Your task to perform on an android device: Open Google Chrome Image 0: 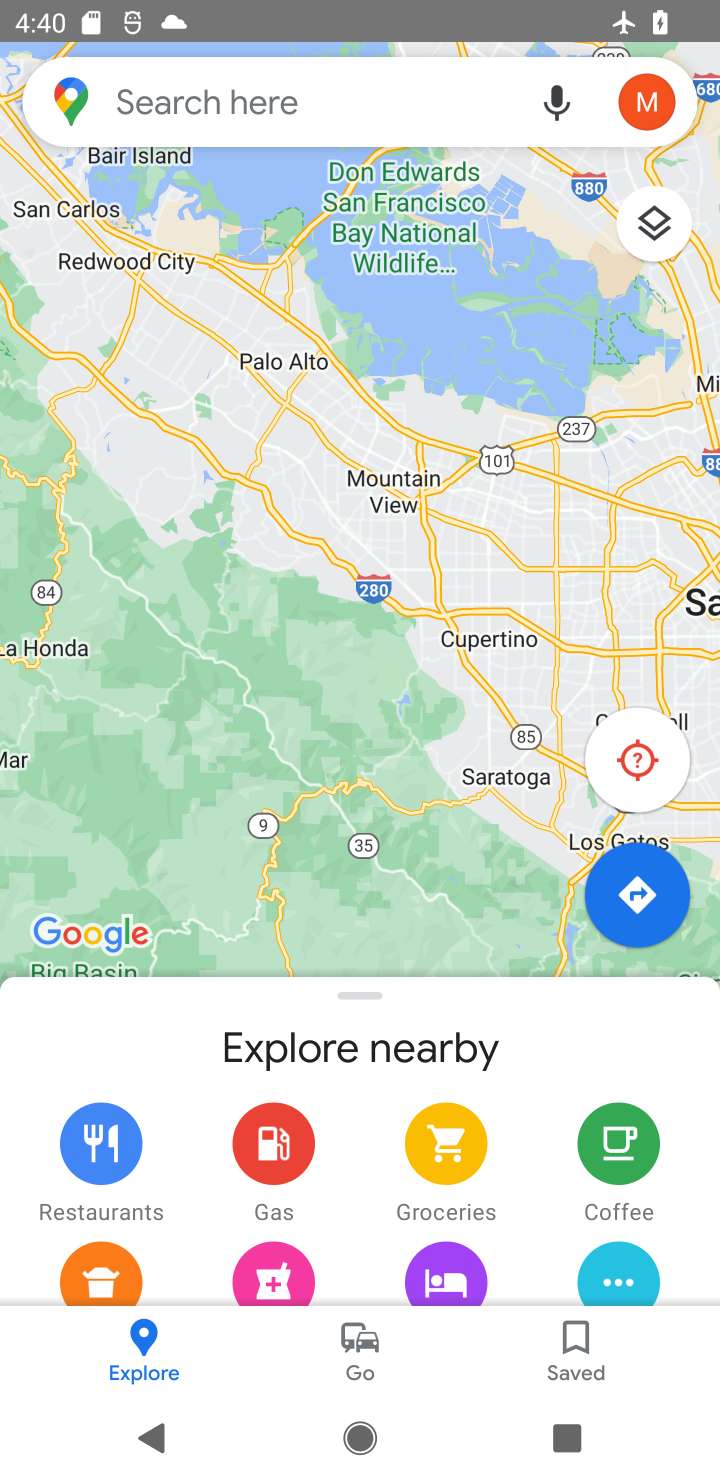
Step 0: press back button
Your task to perform on an android device: Open Google Chrome Image 1: 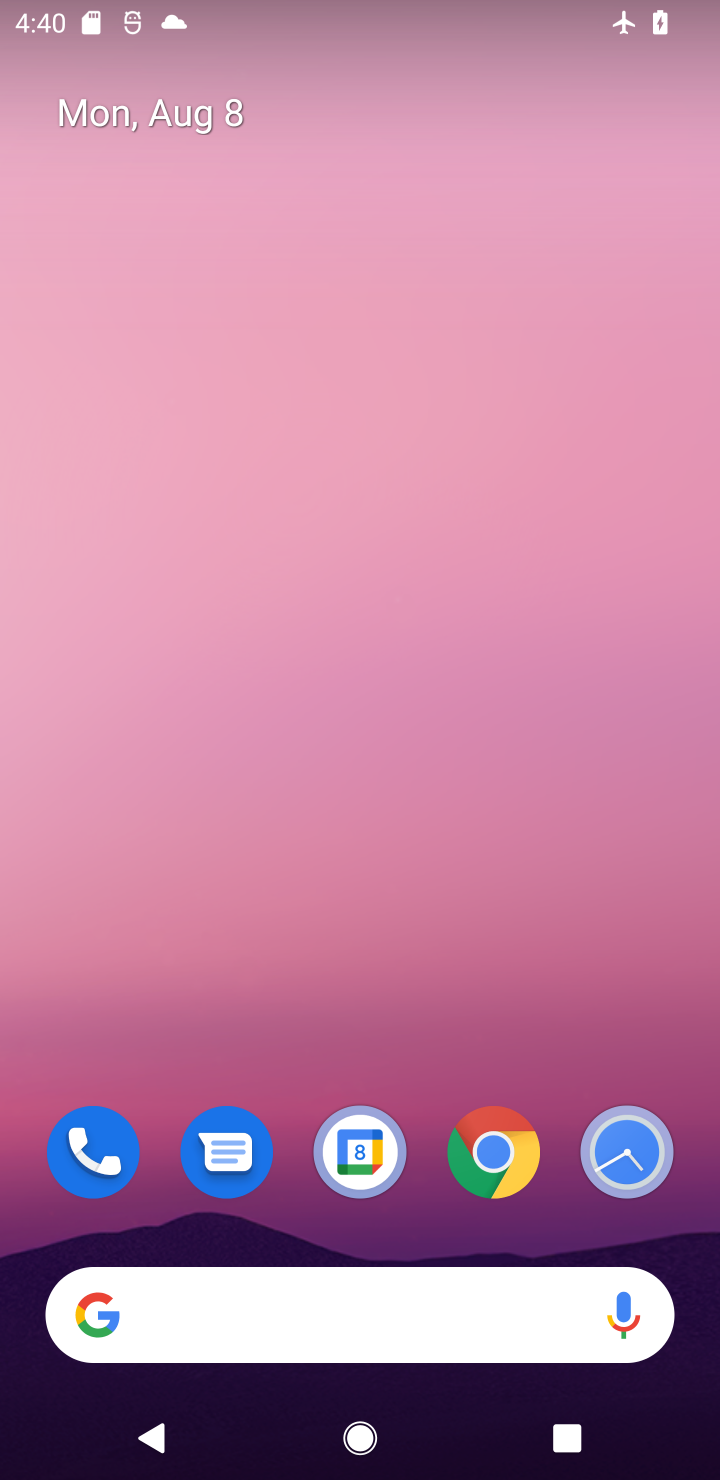
Step 1: click (506, 1147)
Your task to perform on an android device: Open Google Chrome Image 2: 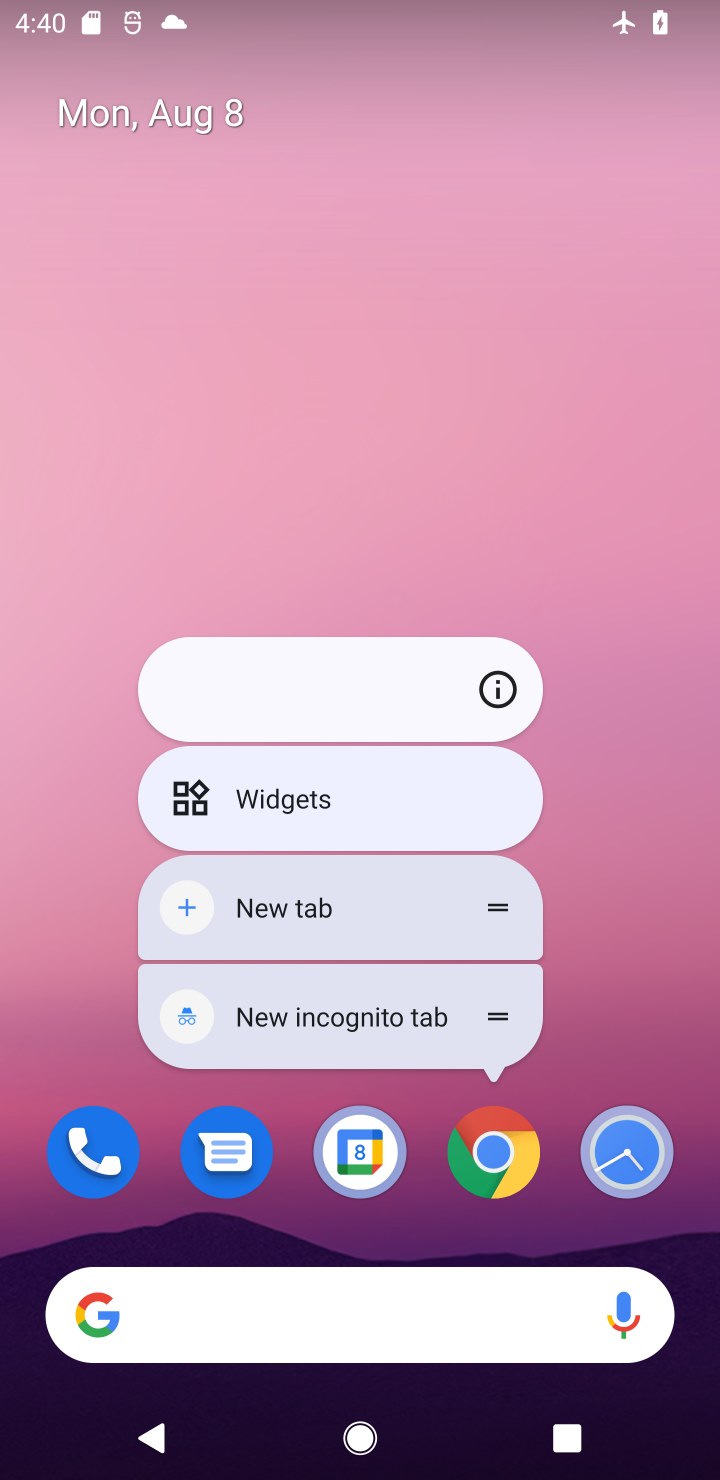
Step 2: click (493, 1166)
Your task to perform on an android device: Open Google Chrome Image 3: 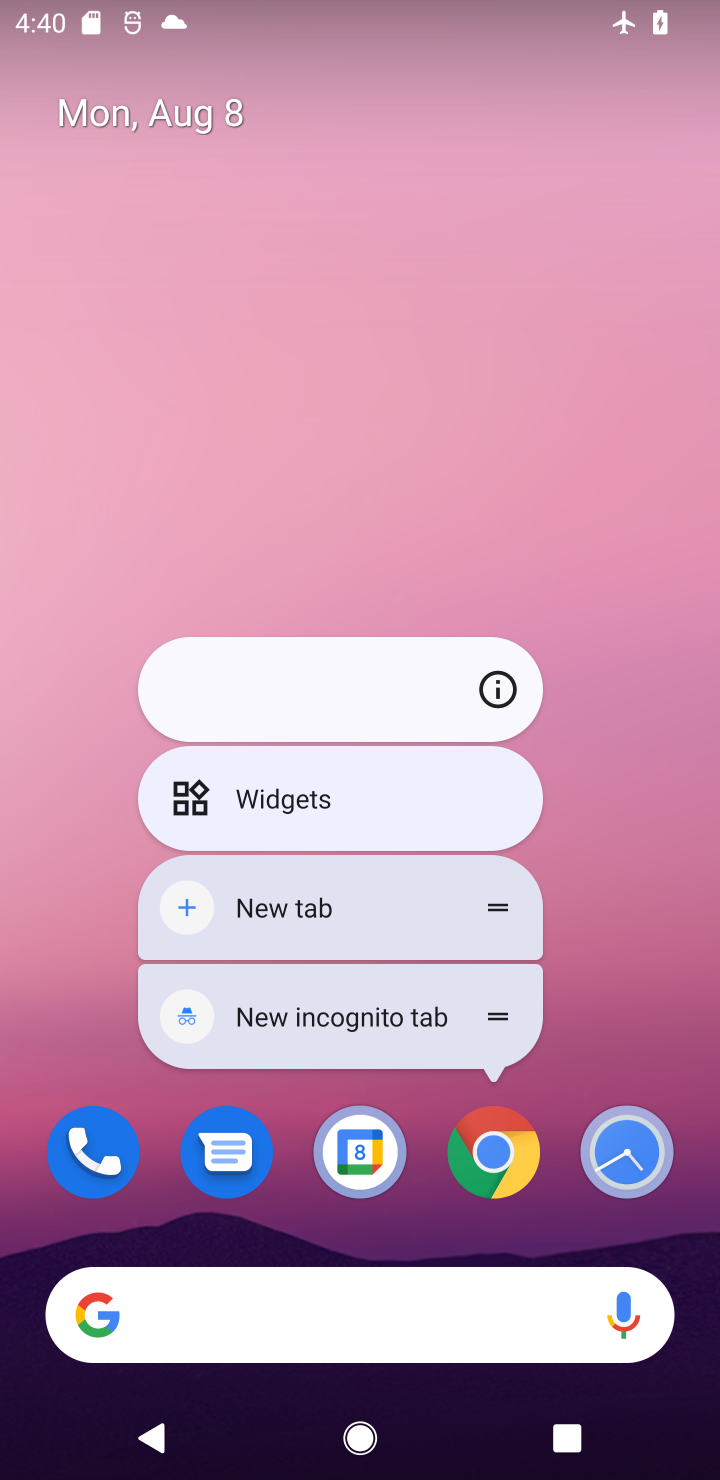
Step 3: click (509, 1155)
Your task to perform on an android device: Open Google Chrome Image 4: 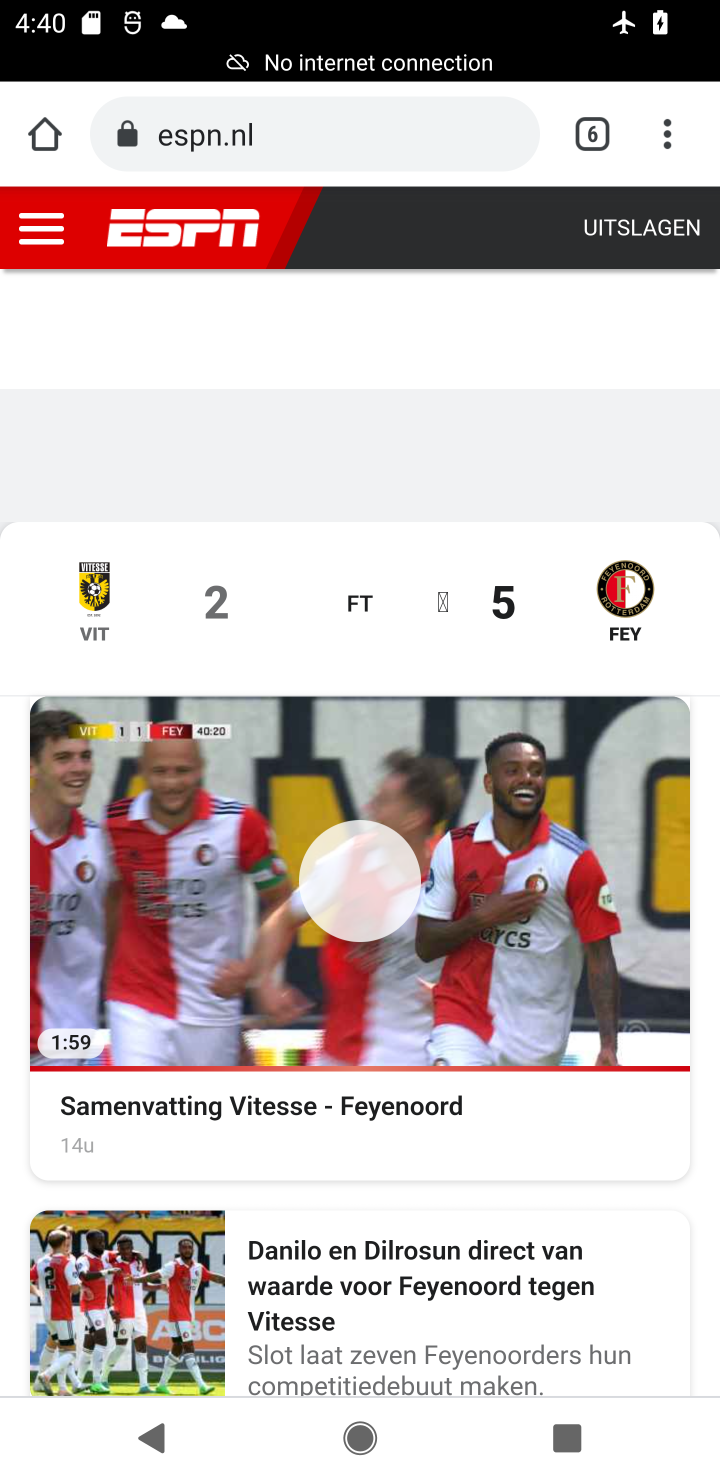
Step 4: task complete